Your task to perform on an android device: Open calendar and show me the first week of next month Image 0: 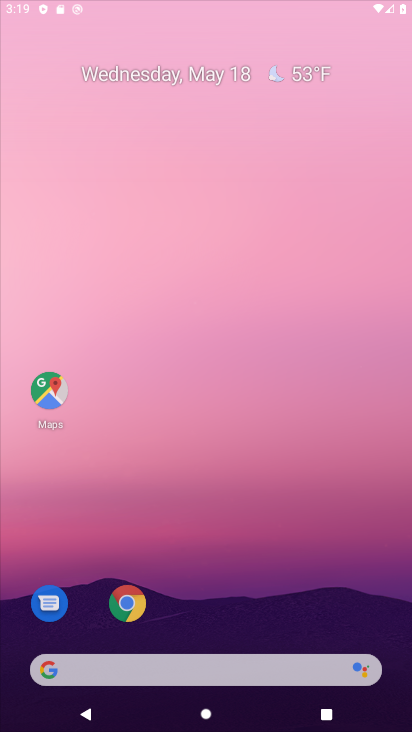
Step 0: drag from (318, 287) to (304, 0)
Your task to perform on an android device: Open calendar and show me the first week of next month Image 1: 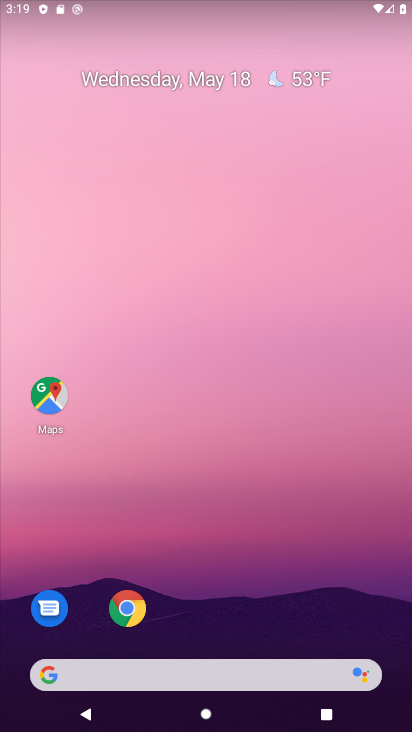
Step 1: drag from (320, 658) to (273, 8)
Your task to perform on an android device: Open calendar and show me the first week of next month Image 2: 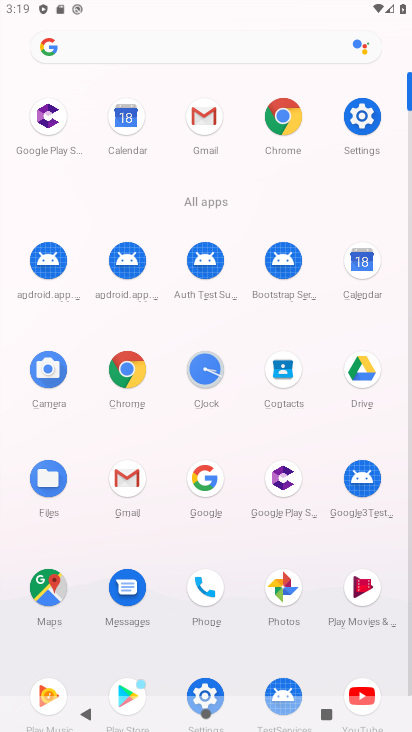
Step 2: click (360, 245)
Your task to perform on an android device: Open calendar and show me the first week of next month Image 3: 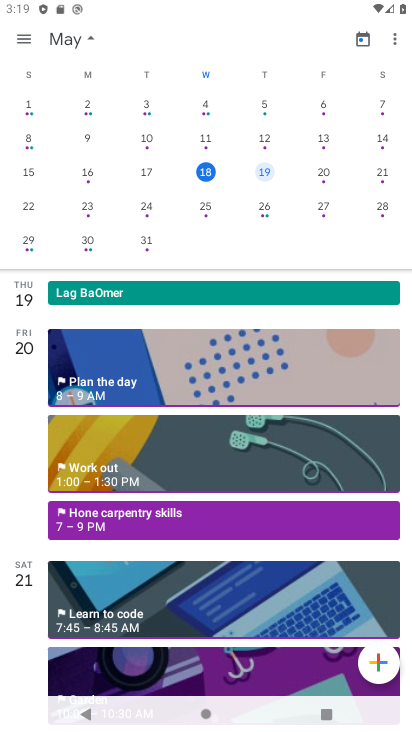
Step 3: drag from (368, 218) to (35, 244)
Your task to perform on an android device: Open calendar and show me the first week of next month Image 4: 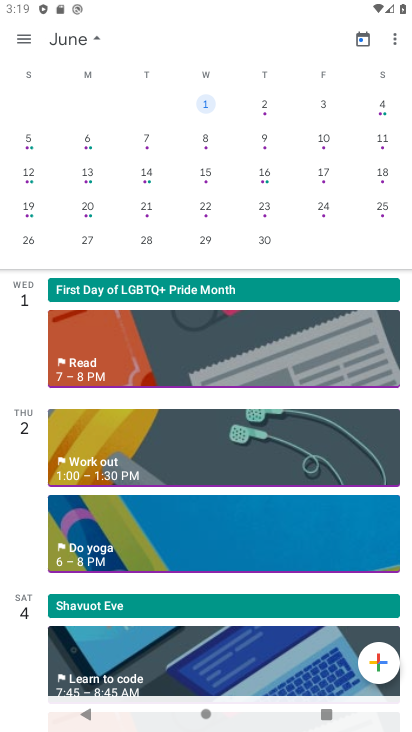
Step 4: click (324, 101)
Your task to perform on an android device: Open calendar and show me the first week of next month Image 5: 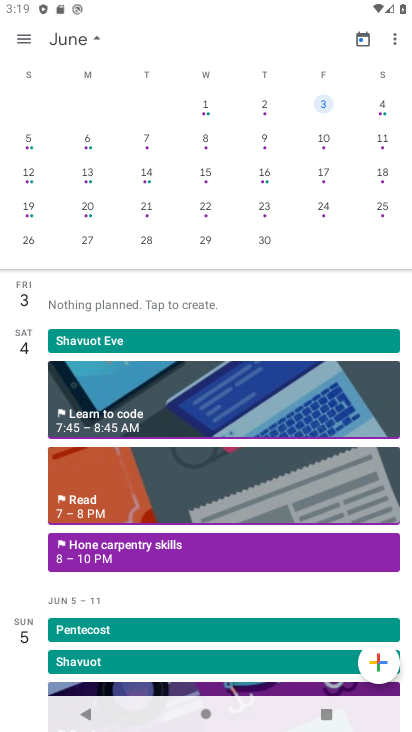
Step 5: task complete